Your task to perform on an android device: allow cookies in the chrome app Image 0: 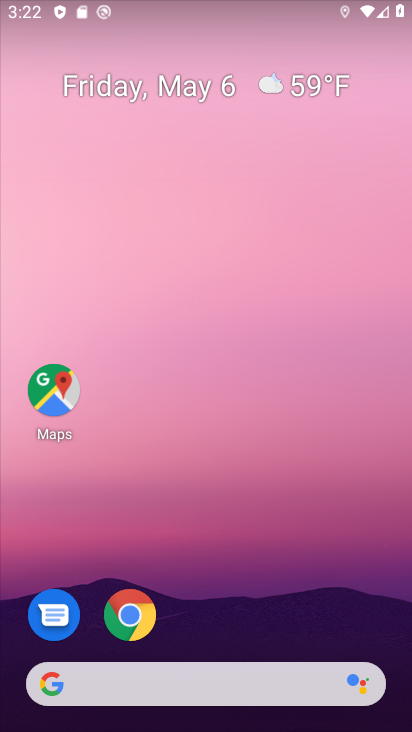
Step 0: click (131, 608)
Your task to perform on an android device: allow cookies in the chrome app Image 1: 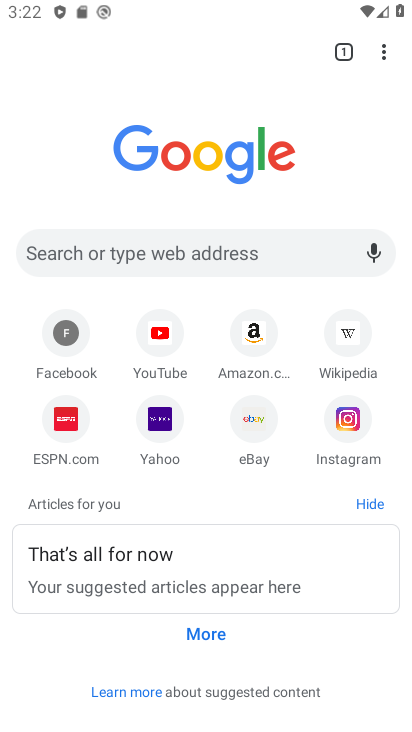
Step 1: click (378, 56)
Your task to perform on an android device: allow cookies in the chrome app Image 2: 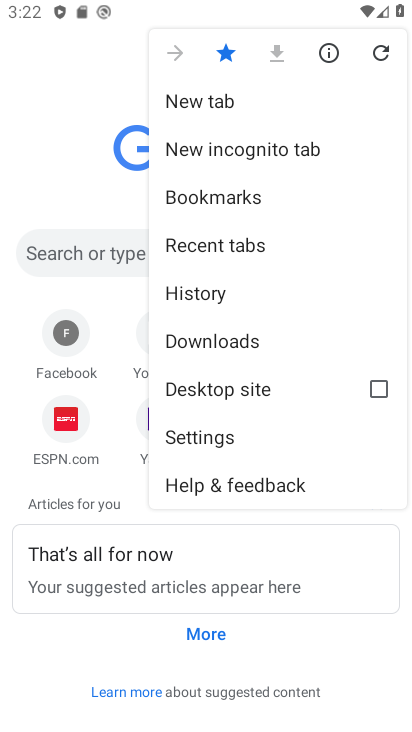
Step 2: click (201, 429)
Your task to perform on an android device: allow cookies in the chrome app Image 3: 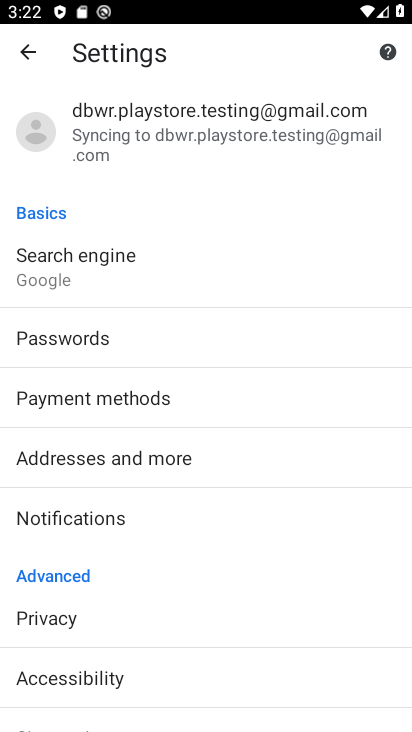
Step 3: drag from (220, 641) to (221, 240)
Your task to perform on an android device: allow cookies in the chrome app Image 4: 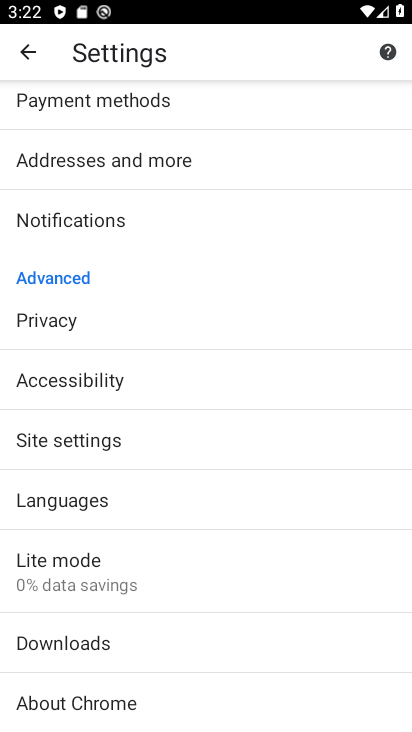
Step 4: click (72, 441)
Your task to perform on an android device: allow cookies in the chrome app Image 5: 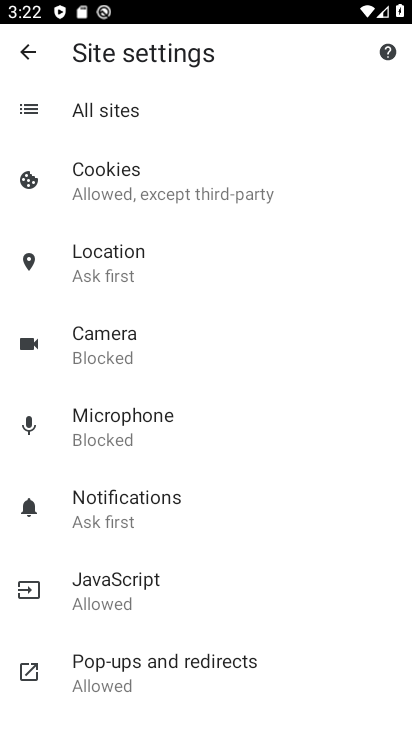
Step 5: click (123, 186)
Your task to perform on an android device: allow cookies in the chrome app Image 6: 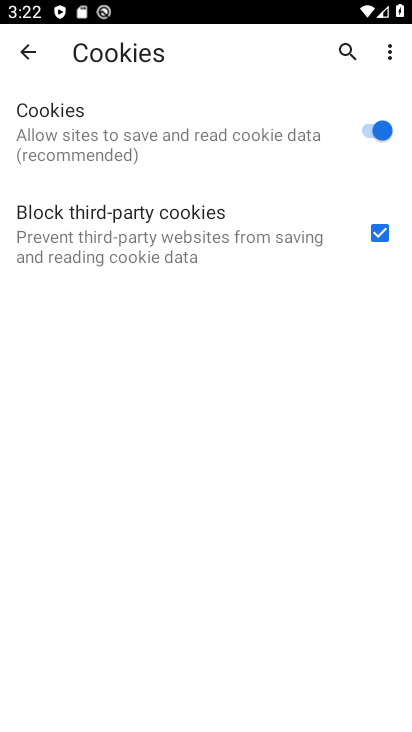
Step 6: task complete